Your task to perform on an android device: Go to ESPN.com Image 0: 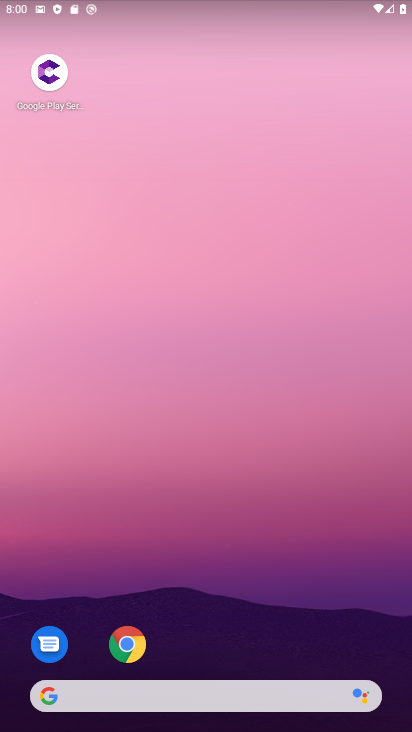
Step 0: click (128, 646)
Your task to perform on an android device: Go to ESPN.com Image 1: 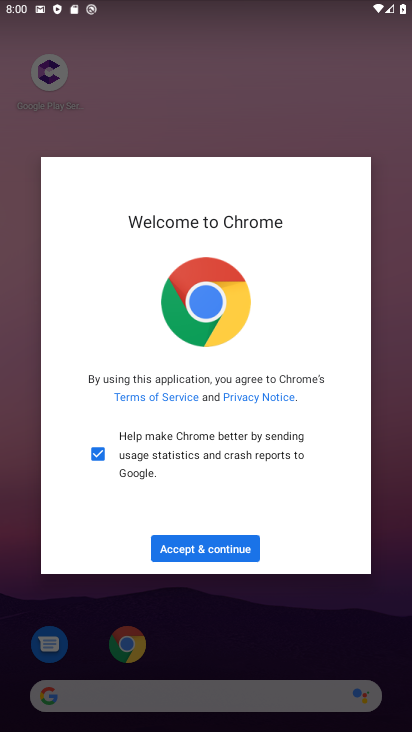
Step 1: click (184, 551)
Your task to perform on an android device: Go to ESPN.com Image 2: 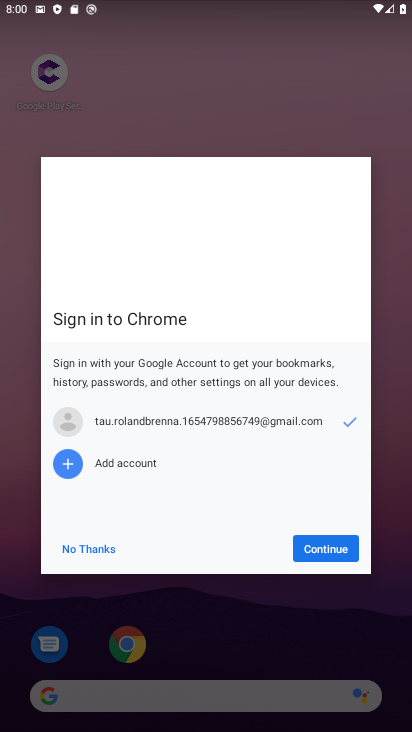
Step 2: click (326, 551)
Your task to perform on an android device: Go to ESPN.com Image 3: 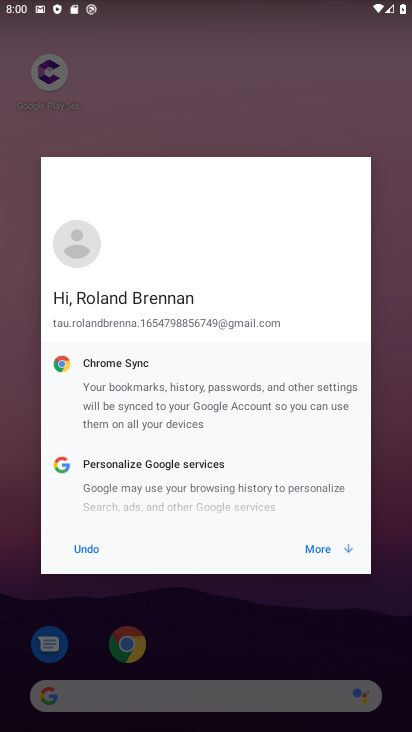
Step 3: click (322, 551)
Your task to perform on an android device: Go to ESPN.com Image 4: 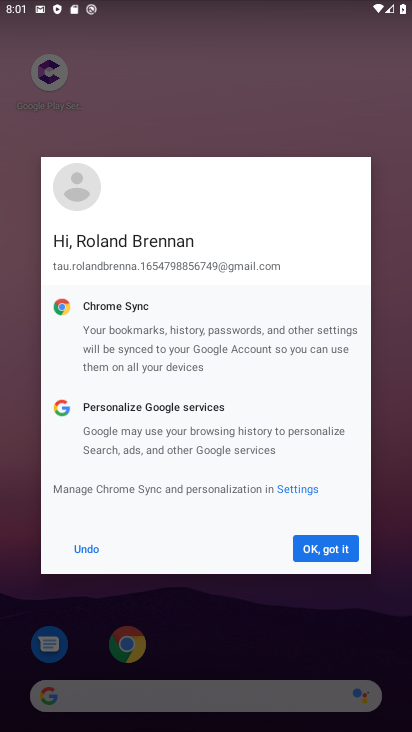
Step 4: click (322, 551)
Your task to perform on an android device: Go to ESPN.com Image 5: 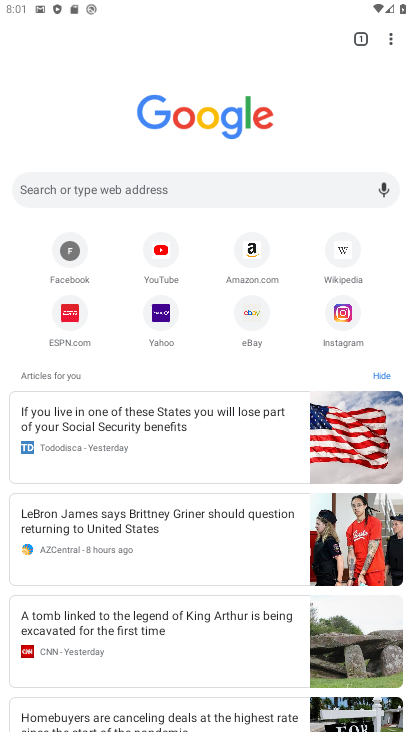
Step 5: click (74, 312)
Your task to perform on an android device: Go to ESPN.com Image 6: 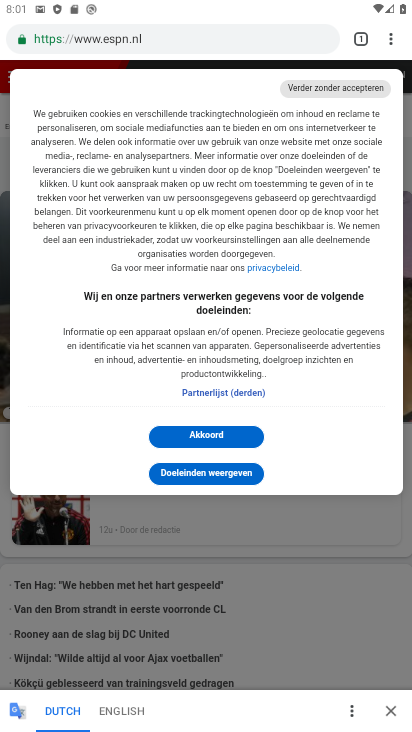
Step 6: task complete